Your task to perform on an android device: Search for sushi restaurants on Maps Image 0: 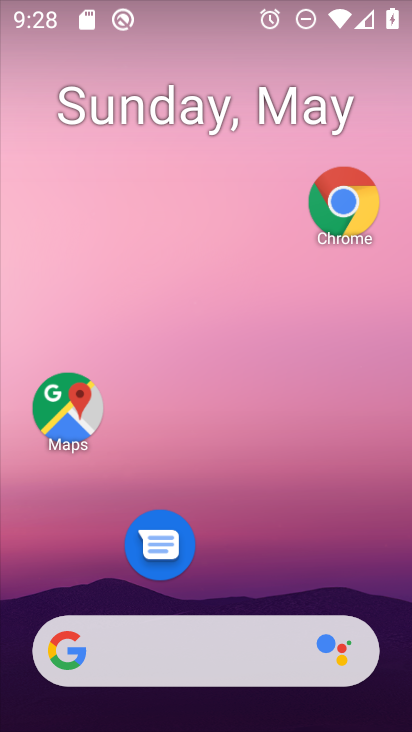
Step 0: click (72, 413)
Your task to perform on an android device: Search for sushi restaurants on Maps Image 1: 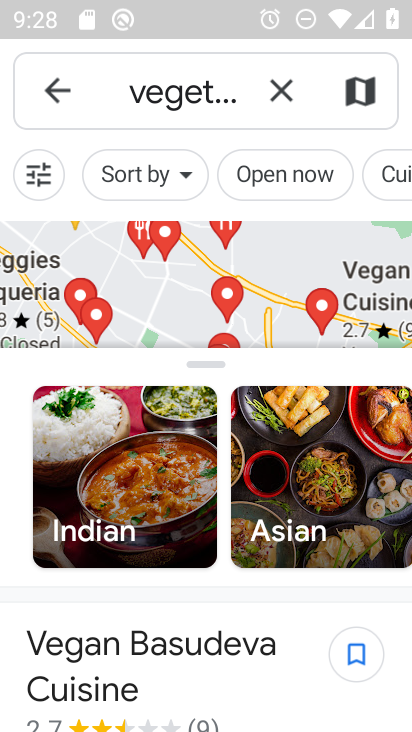
Step 1: click (280, 93)
Your task to perform on an android device: Search for sushi restaurants on Maps Image 2: 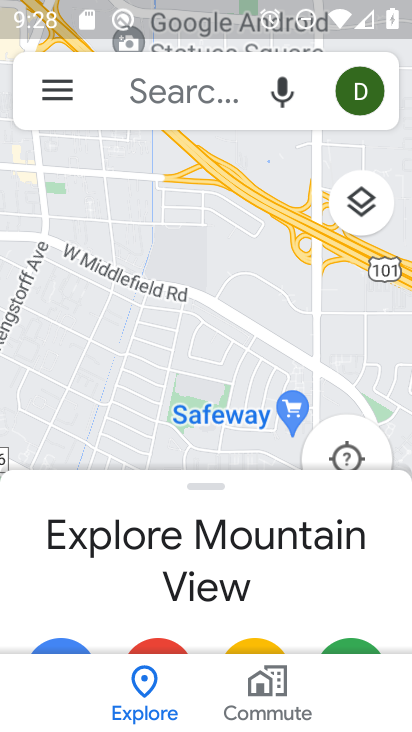
Step 2: click (196, 98)
Your task to perform on an android device: Search for sushi restaurants on Maps Image 3: 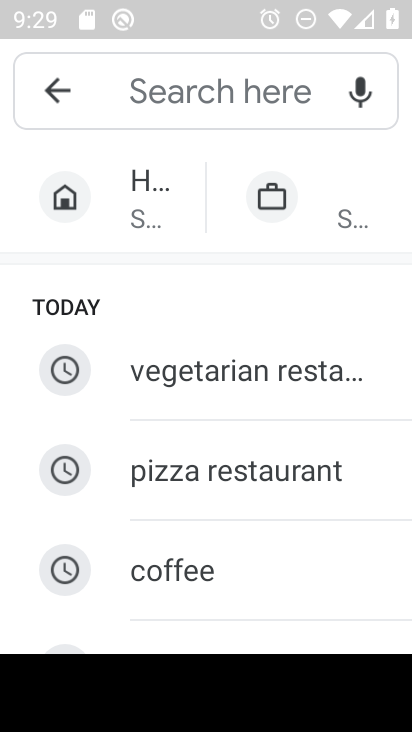
Step 3: type "sushi restaurants"
Your task to perform on an android device: Search for sushi restaurants on Maps Image 4: 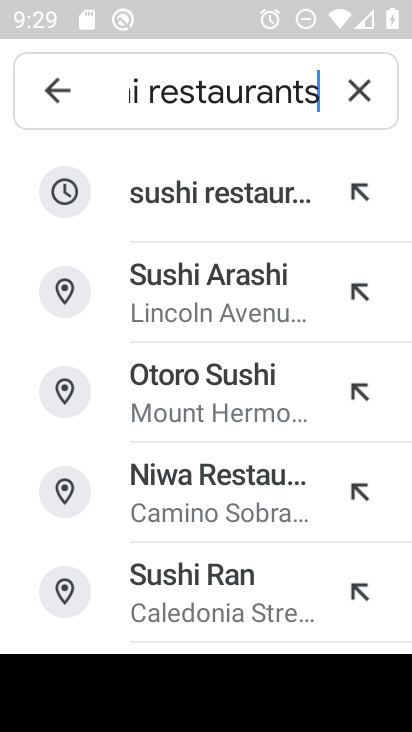
Step 4: click (192, 207)
Your task to perform on an android device: Search for sushi restaurants on Maps Image 5: 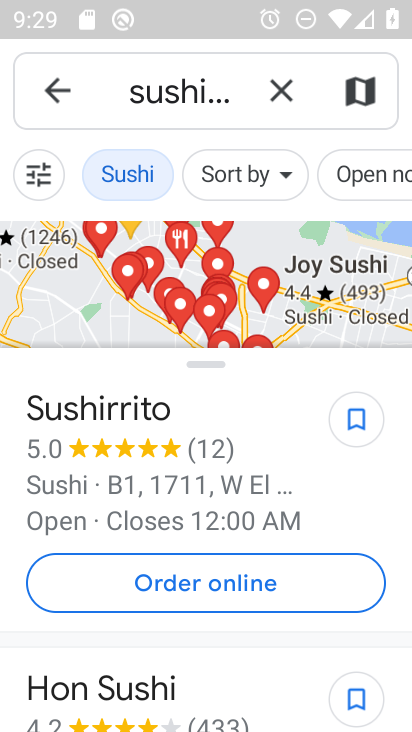
Step 5: task complete